Your task to perform on an android device: install app "PUBG MOBILE" Image 0: 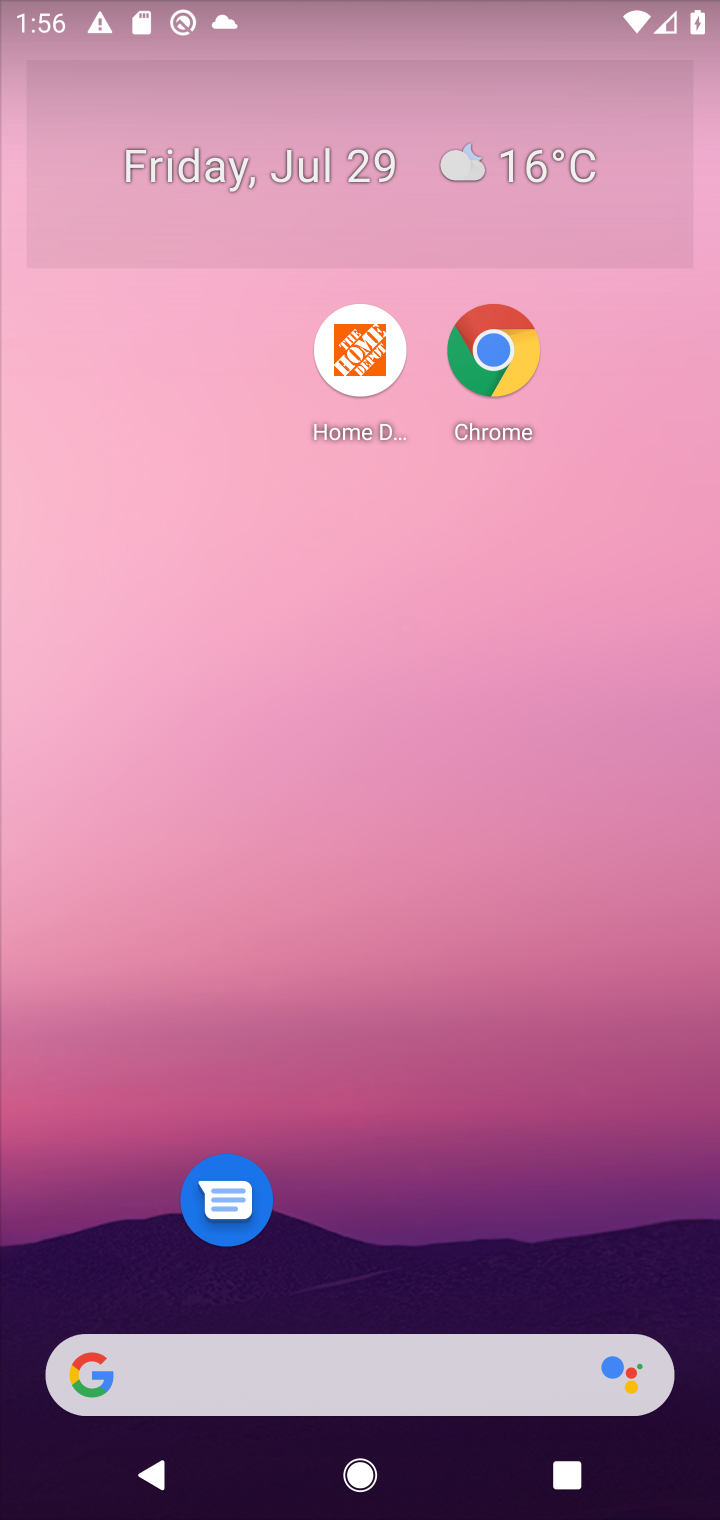
Step 0: press home button
Your task to perform on an android device: install app "PUBG MOBILE" Image 1: 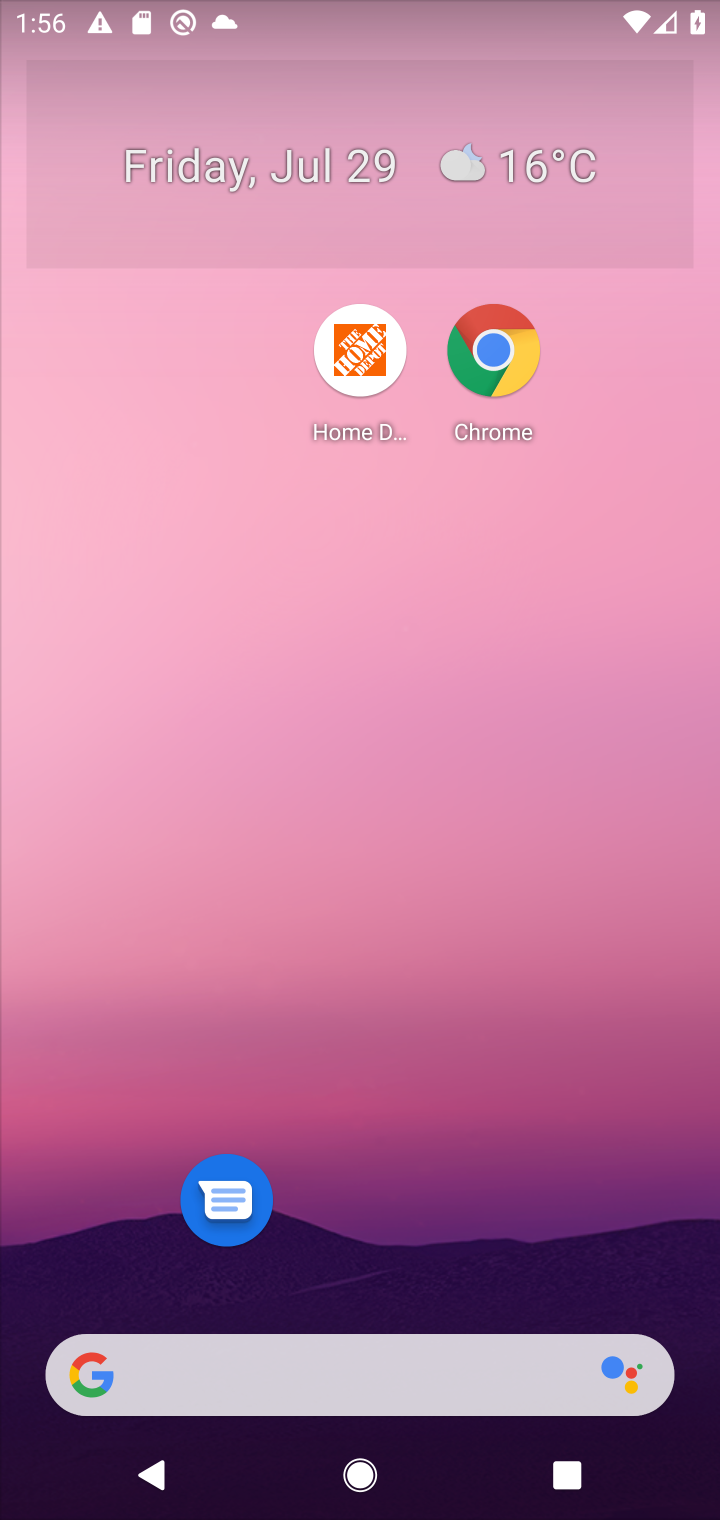
Step 1: click (394, 244)
Your task to perform on an android device: install app "PUBG MOBILE" Image 2: 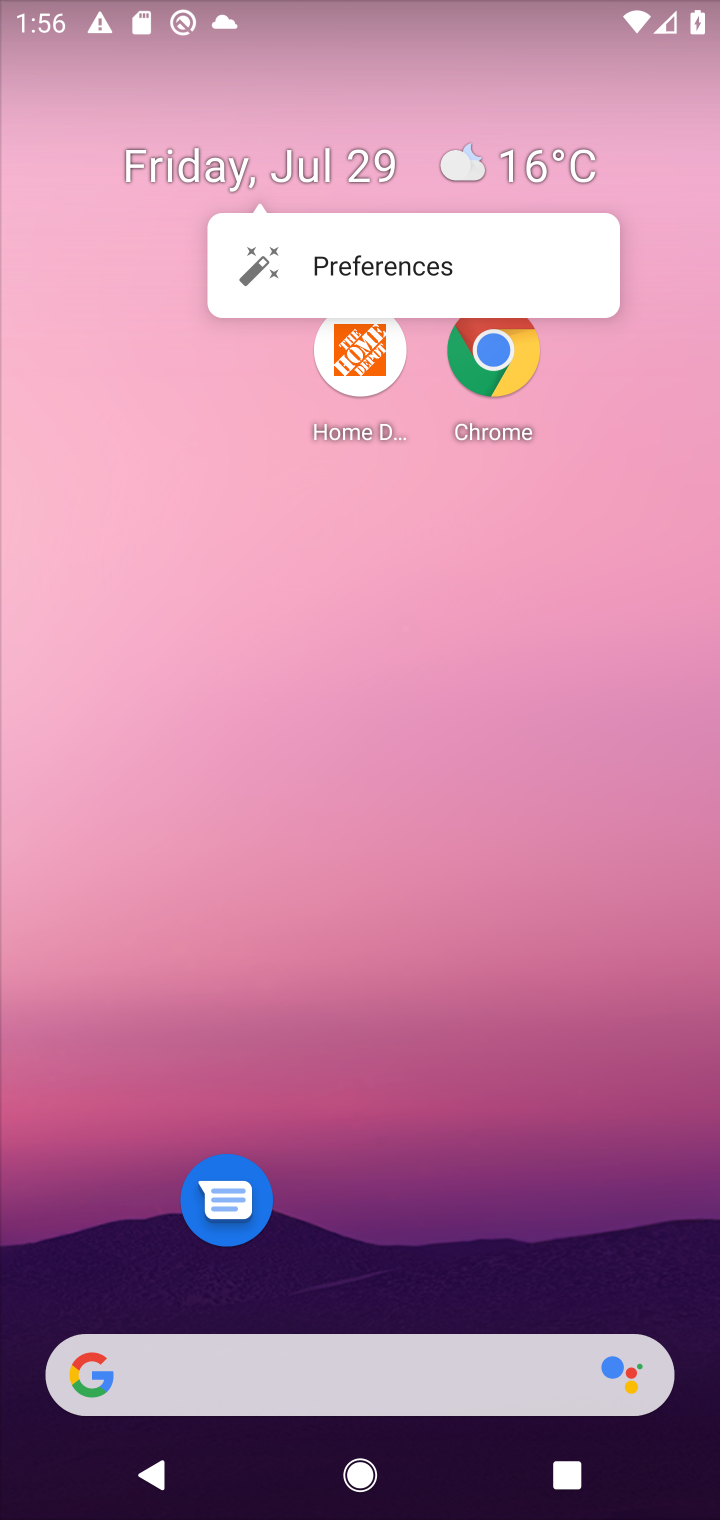
Step 2: click (531, 1061)
Your task to perform on an android device: install app "PUBG MOBILE" Image 3: 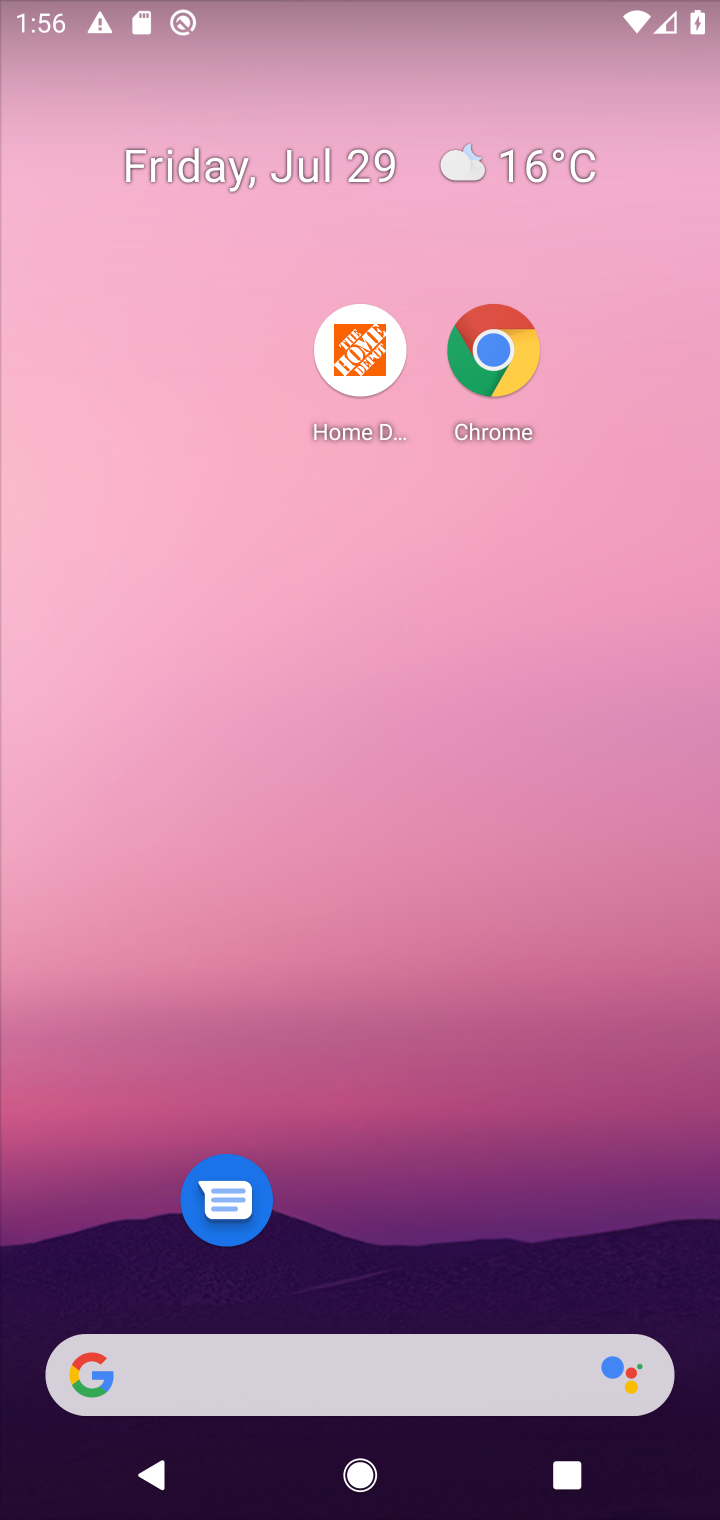
Step 3: drag from (460, 854) to (430, 195)
Your task to perform on an android device: install app "PUBG MOBILE" Image 4: 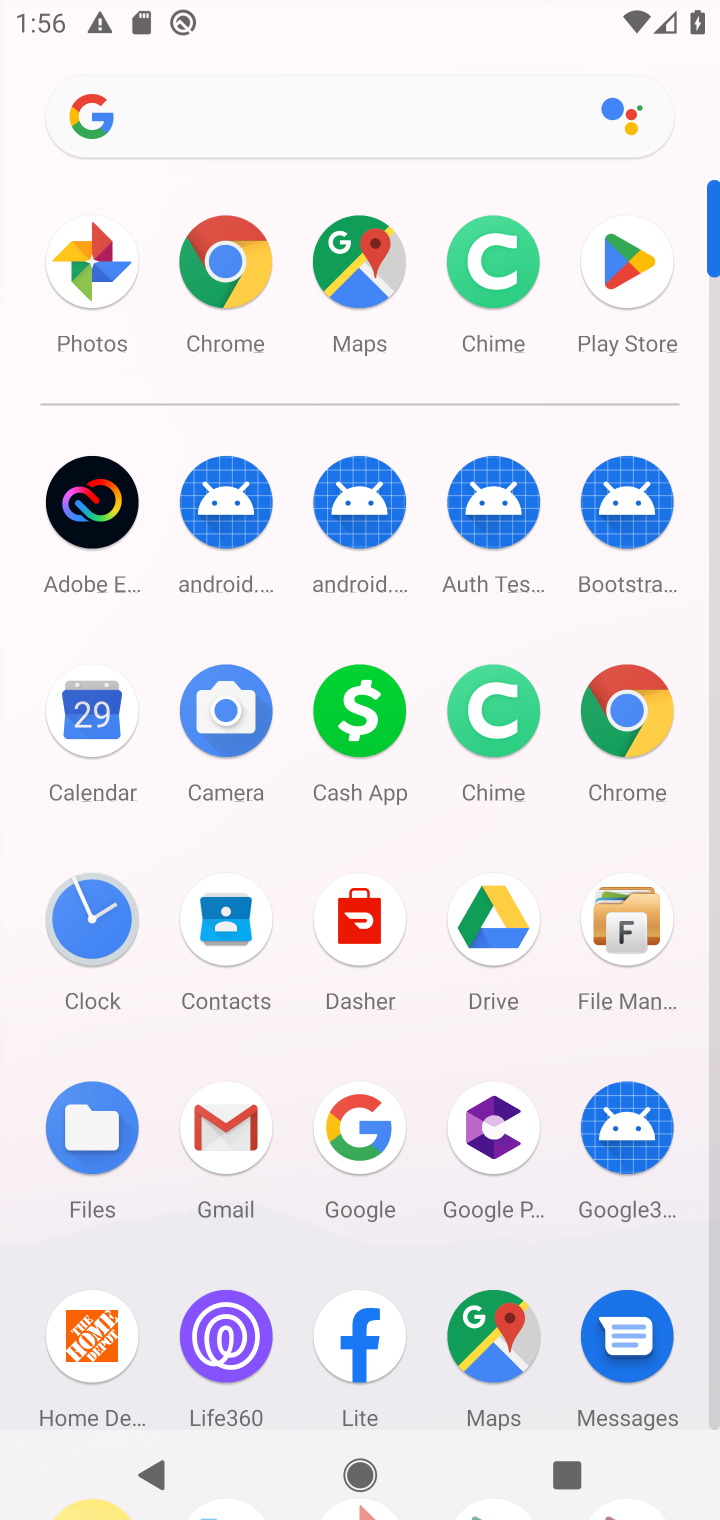
Step 4: click (641, 268)
Your task to perform on an android device: install app "PUBG MOBILE" Image 5: 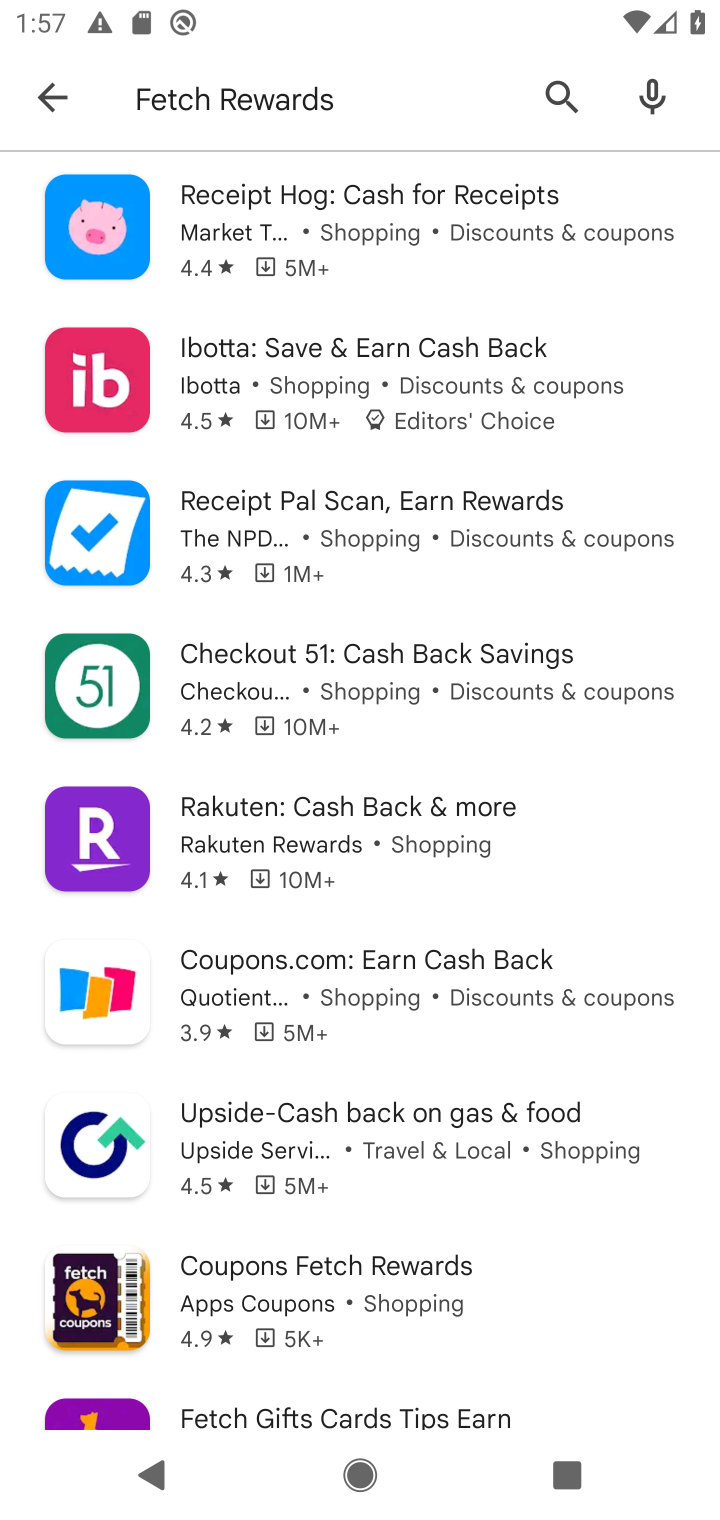
Step 5: click (418, 80)
Your task to perform on an android device: install app "PUBG MOBILE" Image 6: 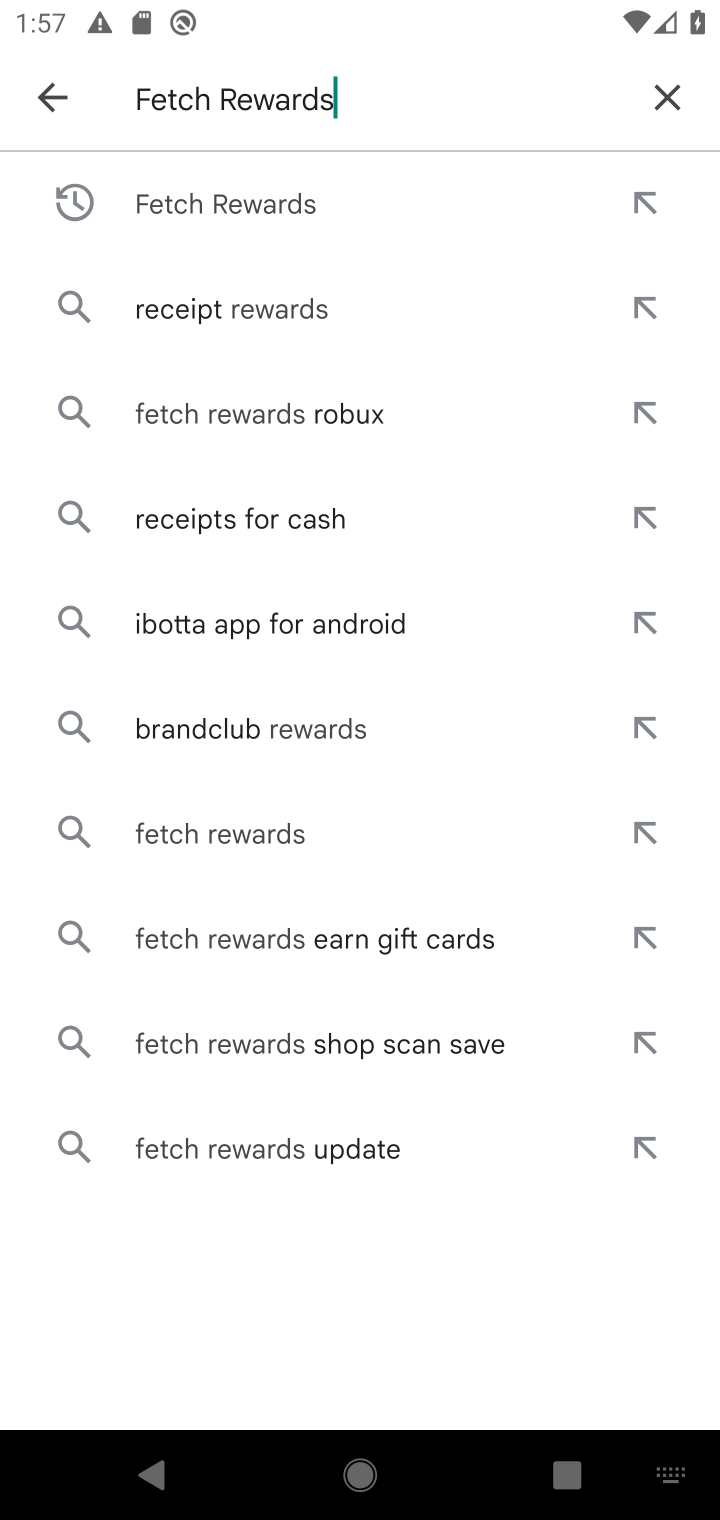
Step 6: click (677, 88)
Your task to perform on an android device: install app "PUBG MOBILE" Image 7: 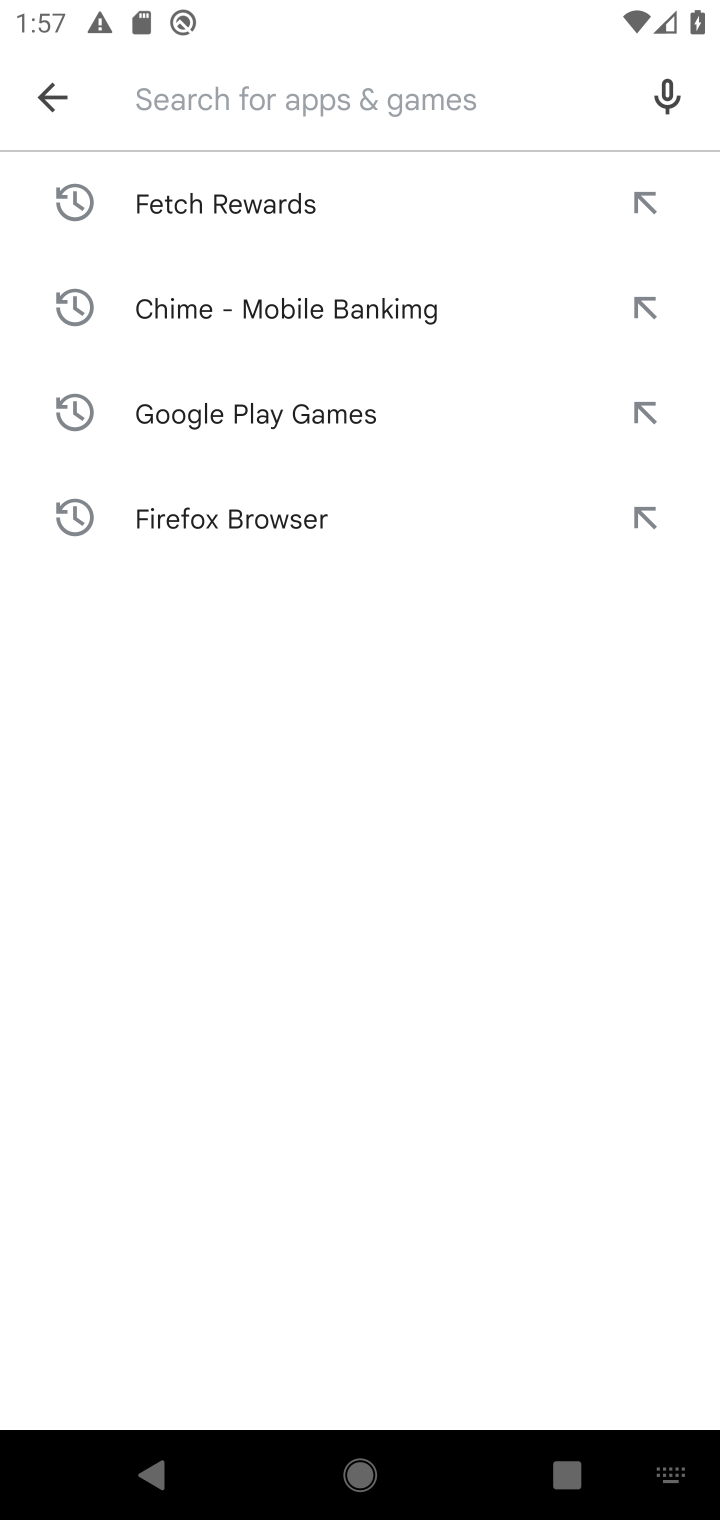
Step 7: type "PUBG MOBILE"
Your task to perform on an android device: install app "PUBG MOBILE" Image 8: 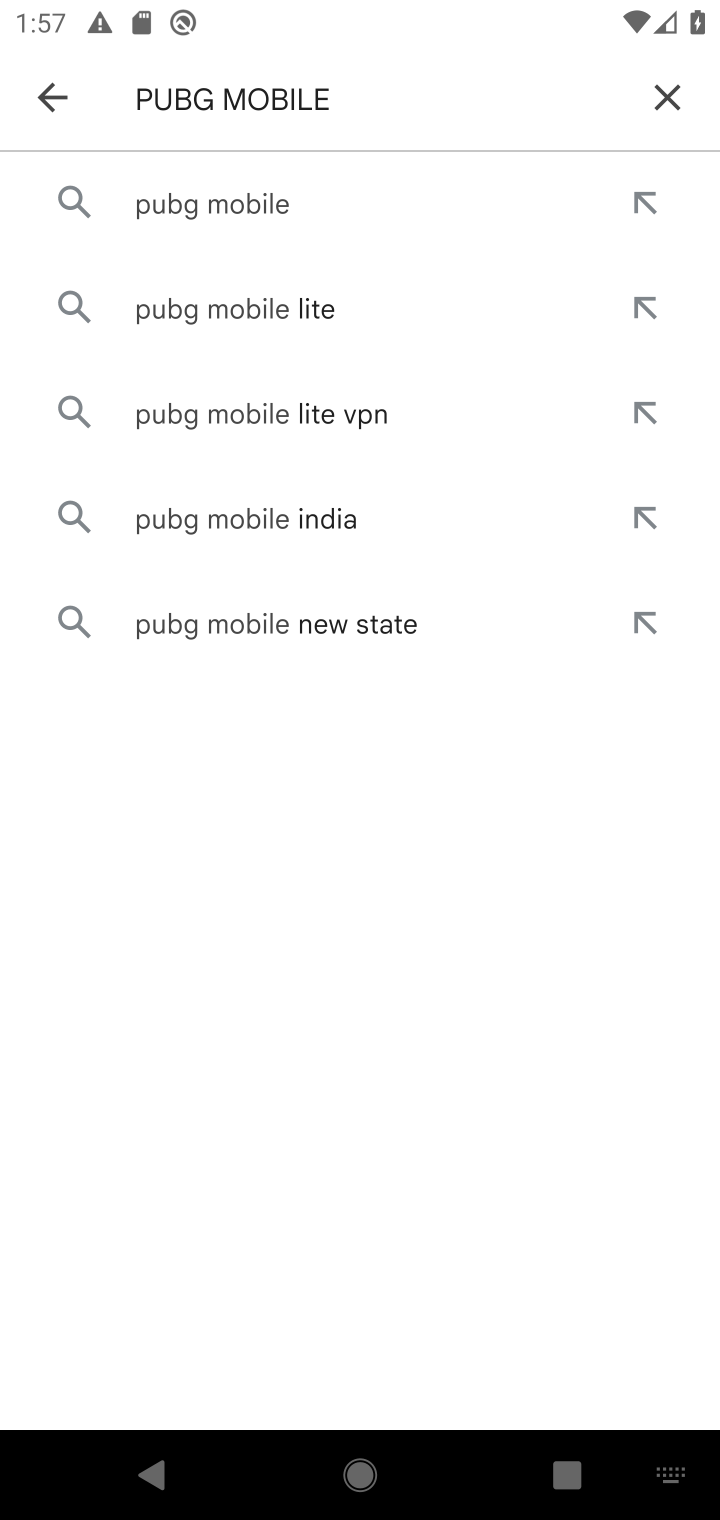
Step 8: press enter
Your task to perform on an android device: install app "PUBG MOBILE" Image 9: 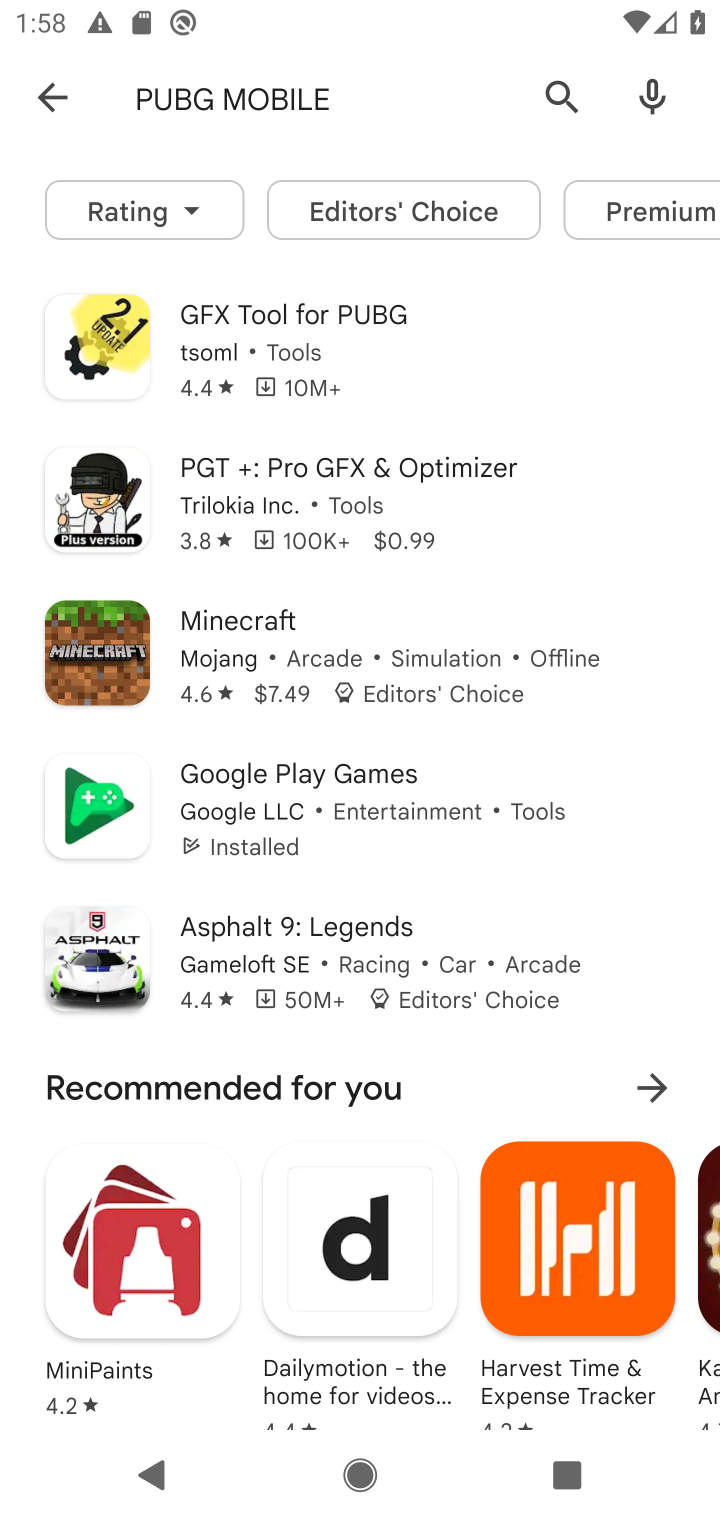
Step 9: task complete